Your task to perform on an android device: toggle pop-ups in chrome Image 0: 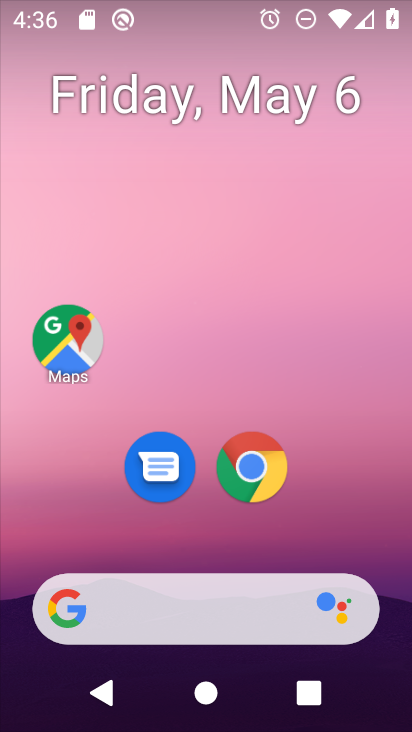
Step 0: click (259, 479)
Your task to perform on an android device: toggle pop-ups in chrome Image 1: 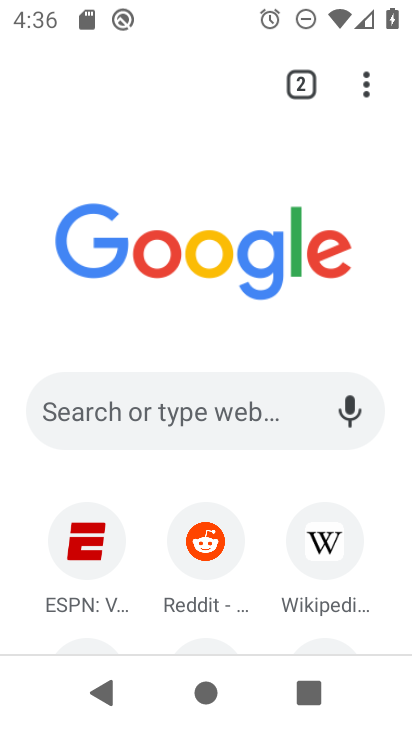
Step 1: click (363, 92)
Your task to perform on an android device: toggle pop-ups in chrome Image 2: 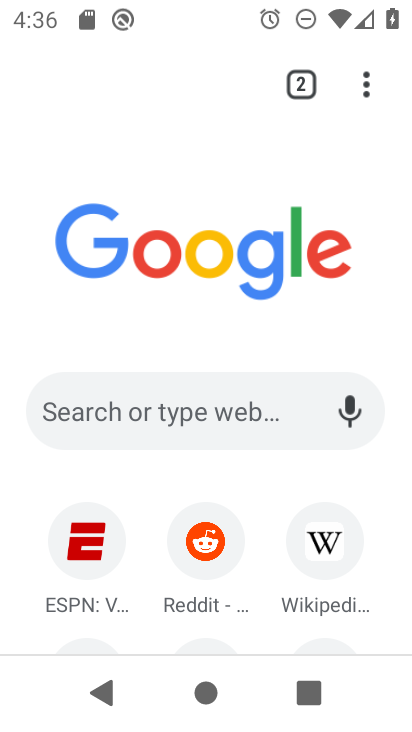
Step 2: click (365, 91)
Your task to perform on an android device: toggle pop-ups in chrome Image 3: 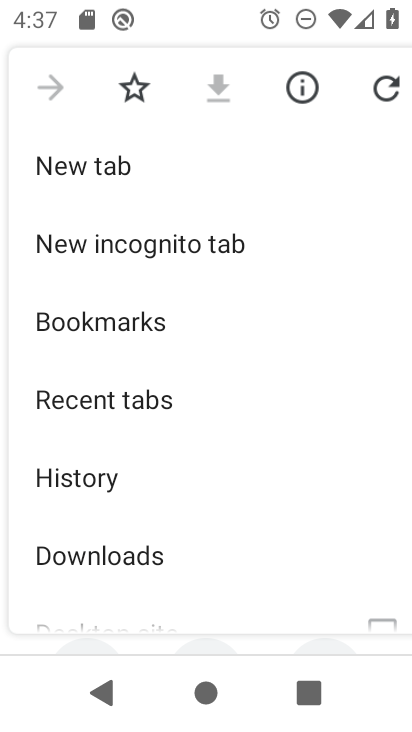
Step 3: drag from (174, 544) to (139, 293)
Your task to perform on an android device: toggle pop-ups in chrome Image 4: 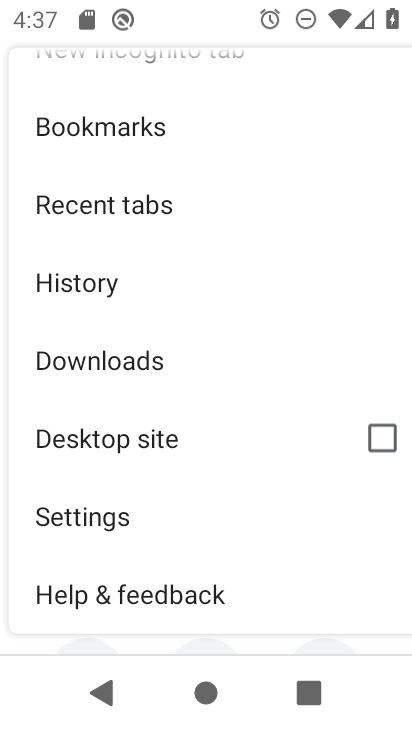
Step 4: click (82, 529)
Your task to perform on an android device: toggle pop-ups in chrome Image 5: 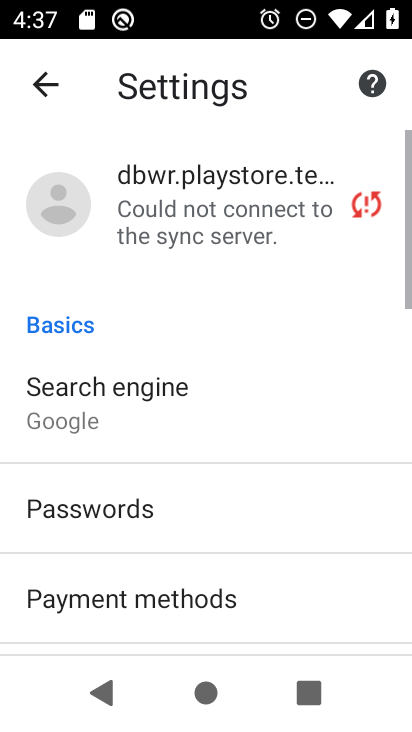
Step 5: click (175, 235)
Your task to perform on an android device: toggle pop-ups in chrome Image 6: 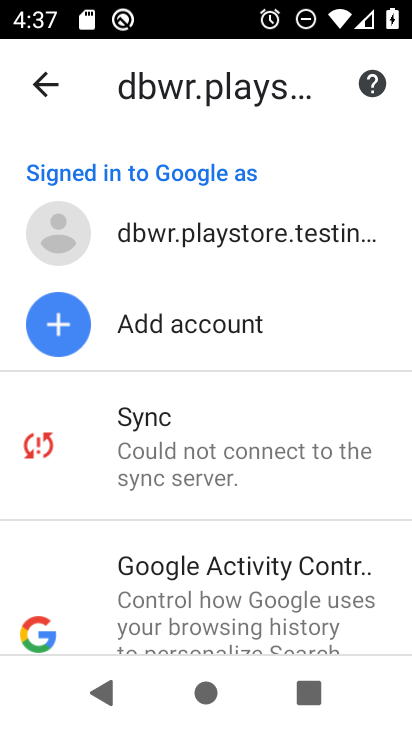
Step 6: drag from (212, 583) to (195, 264)
Your task to perform on an android device: toggle pop-ups in chrome Image 7: 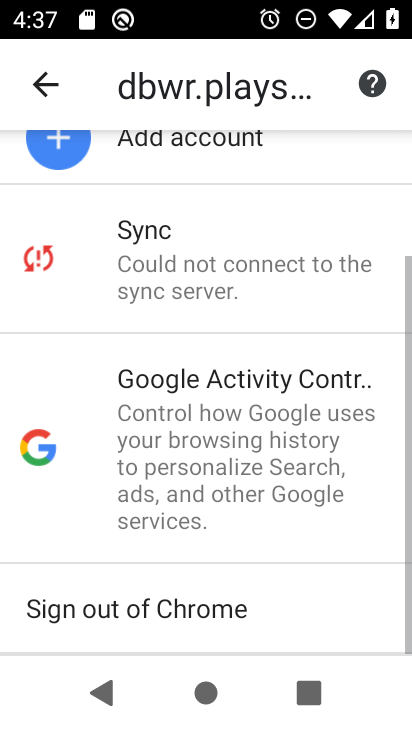
Step 7: drag from (271, 582) to (307, 255)
Your task to perform on an android device: toggle pop-ups in chrome Image 8: 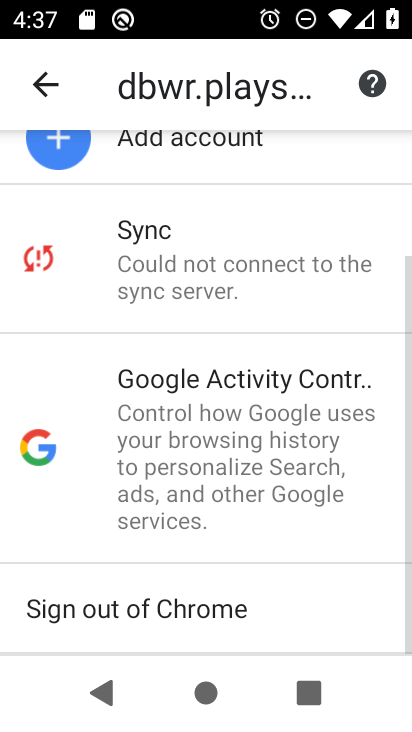
Step 8: drag from (261, 259) to (231, 530)
Your task to perform on an android device: toggle pop-ups in chrome Image 9: 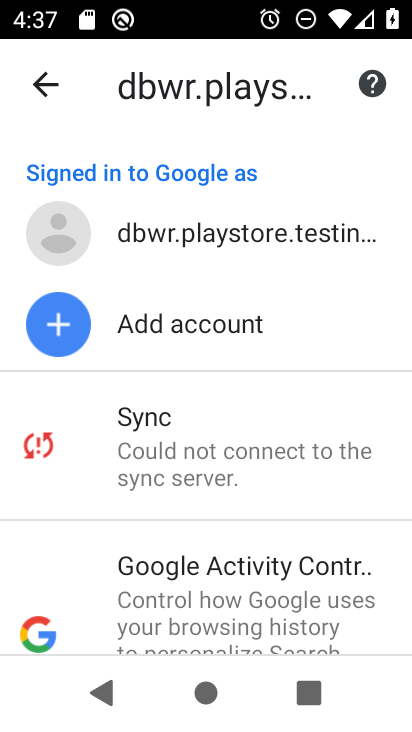
Step 9: drag from (243, 594) to (284, 267)
Your task to perform on an android device: toggle pop-ups in chrome Image 10: 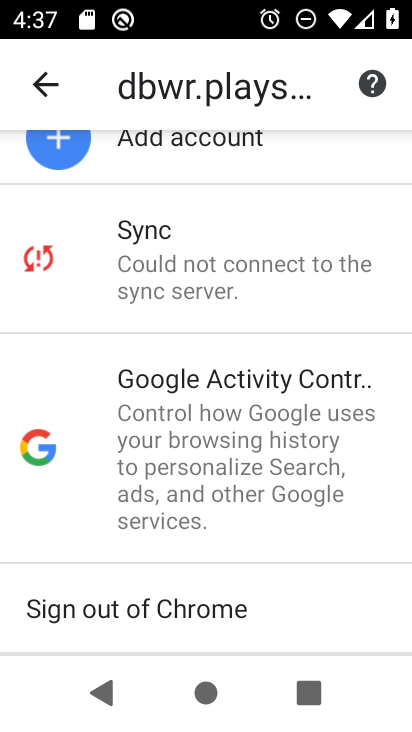
Step 10: press back button
Your task to perform on an android device: toggle pop-ups in chrome Image 11: 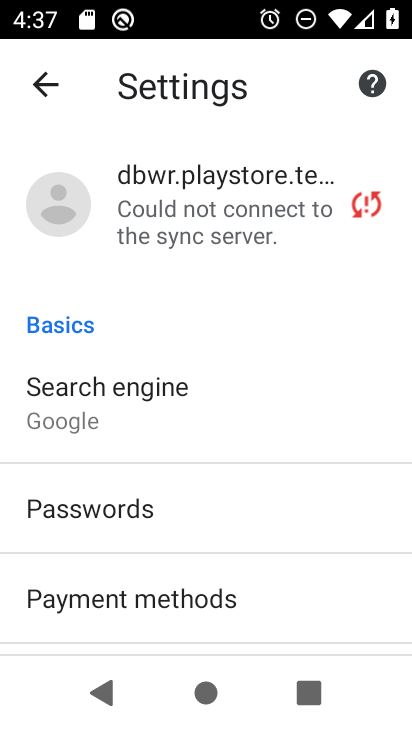
Step 11: drag from (178, 557) to (192, 222)
Your task to perform on an android device: toggle pop-ups in chrome Image 12: 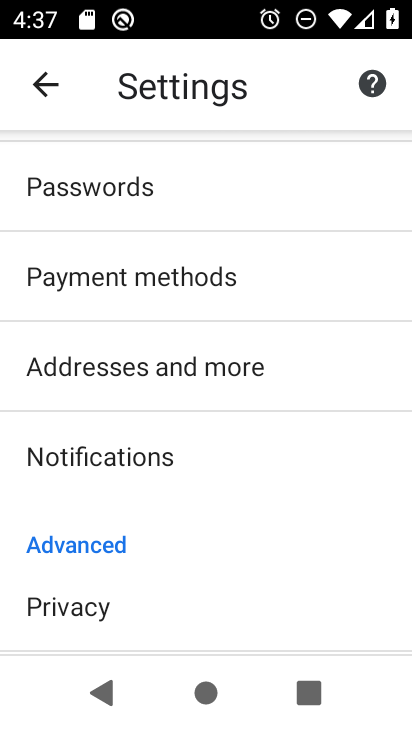
Step 12: drag from (143, 531) to (154, 191)
Your task to perform on an android device: toggle pop-ups in chrome Image 13: 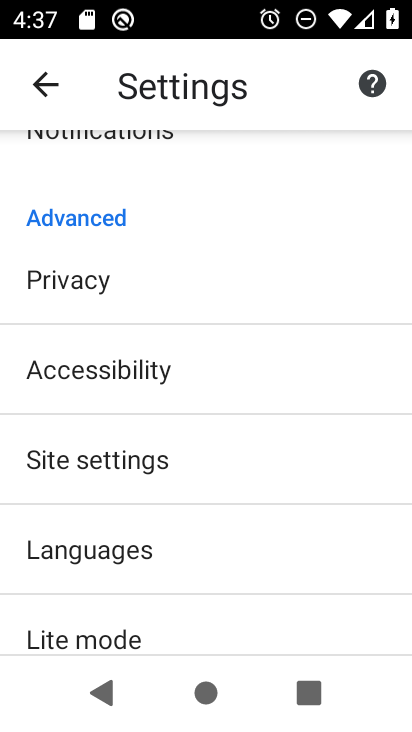
Step 13: click (132, 471)
Your task to perform on an android device: toggle pop-ups in chrome Image 14: 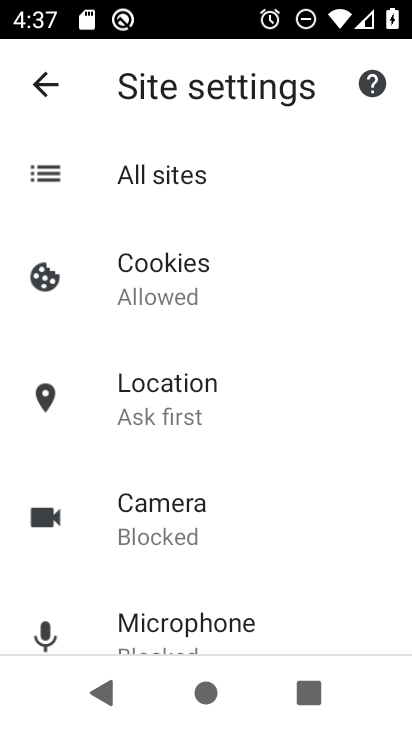
Step 14: drag from (175, 565) to (217, 268)
Your task to perform on an android device: toggle pop-ups in chrome Image 15: 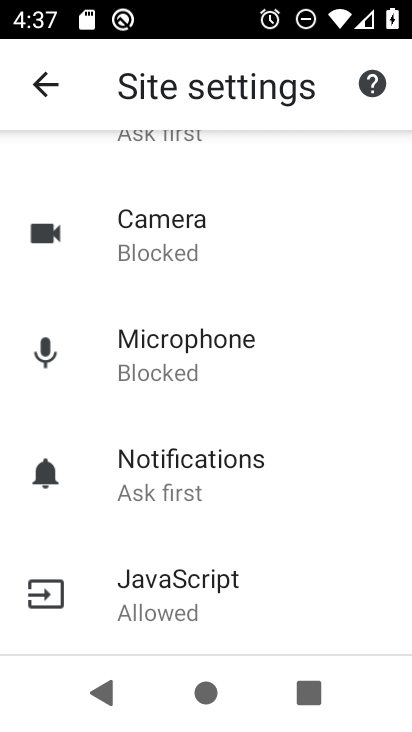
Step 15: drag from (195, 550) to (277, 250)
Your task to perform on an android device: toggle pop-ups in chrome Image 16: 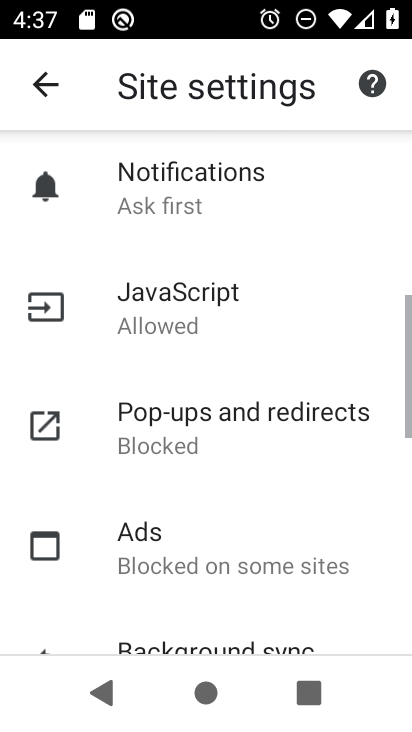
Step 16: click (225, 415)
Your task to perform on an android device: toggle pop-ups in chrome Image 17: 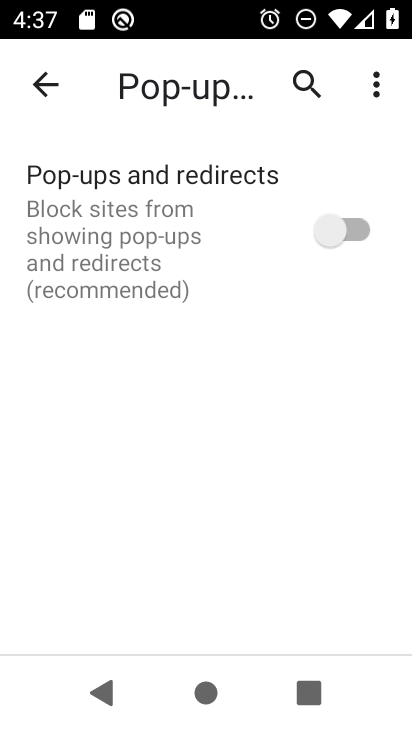
Step 17: click (369, 224)
Your task to perform on an android device: toggle pop-ups in chrome Image 18: 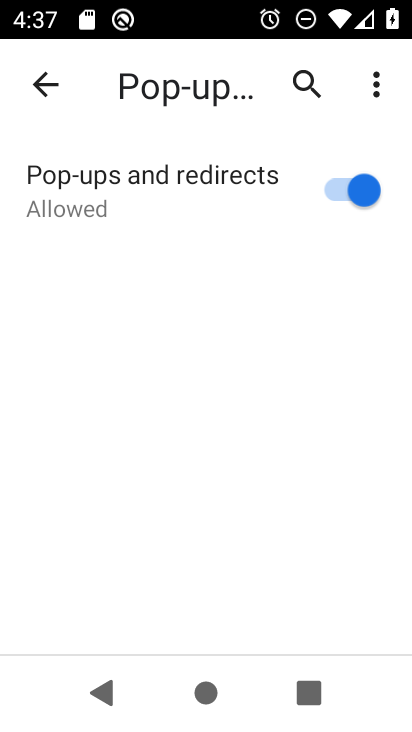
Step 18: task complete